Your task to perform on an android device: install app "Adobe Acrobat Reader" Image 0: 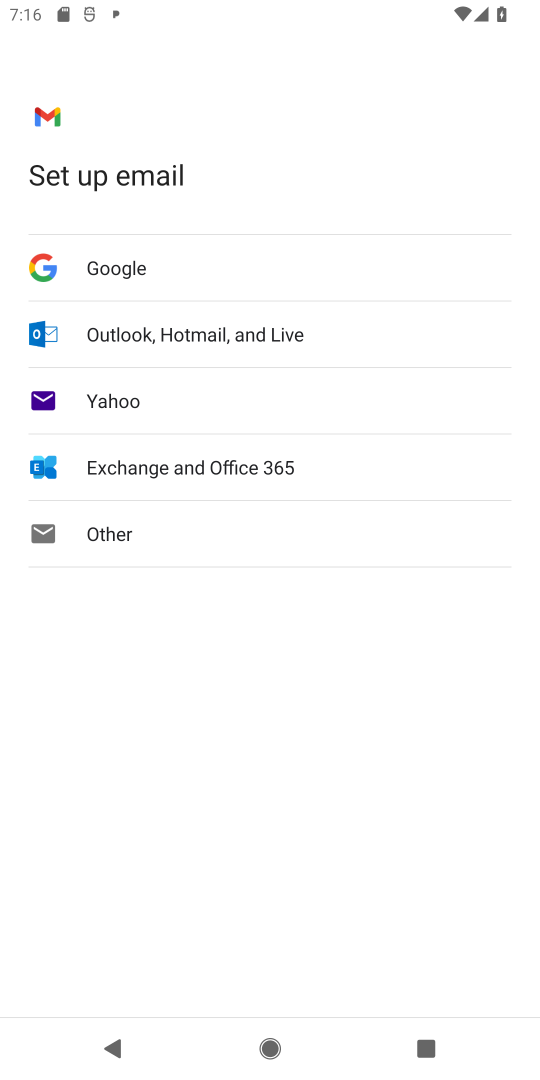
Step 0: press home button
Your task to perform on an android device: install app "Adobe Acrobat Reader" Image 1: 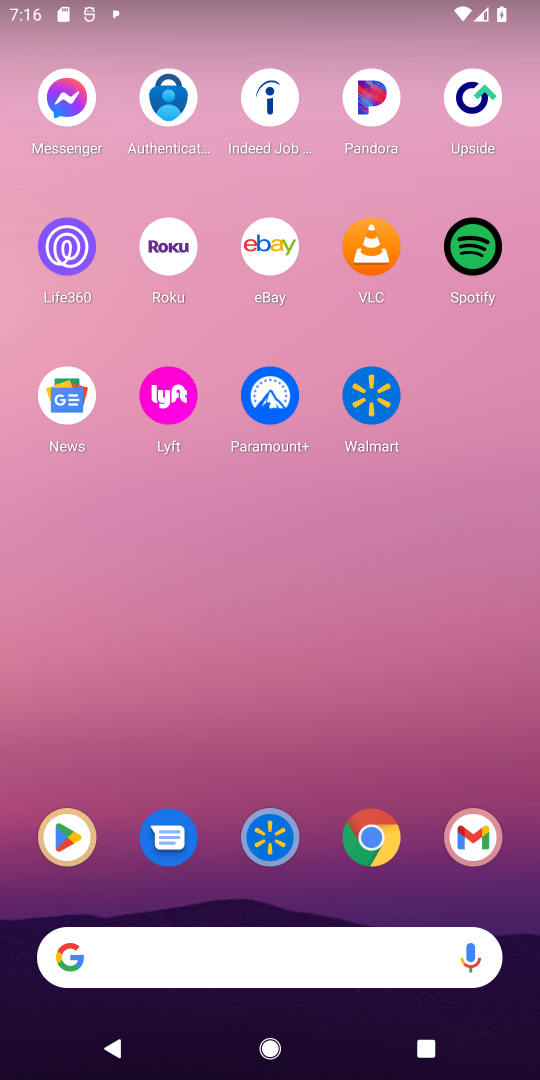
Step 1: click (53, 842)
Your task to perform on an android device: install app "Adobe Acrobat Reader" Image 2: 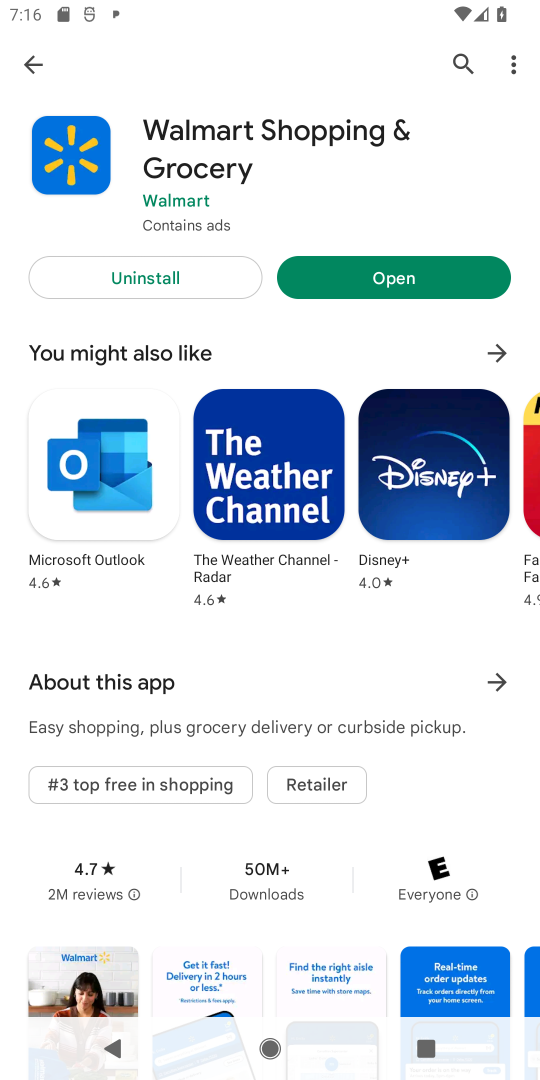
Step 2: click (454, 51)
Your task to perform on an android device: install app "Adobe Acrobat Reader" Image 3: 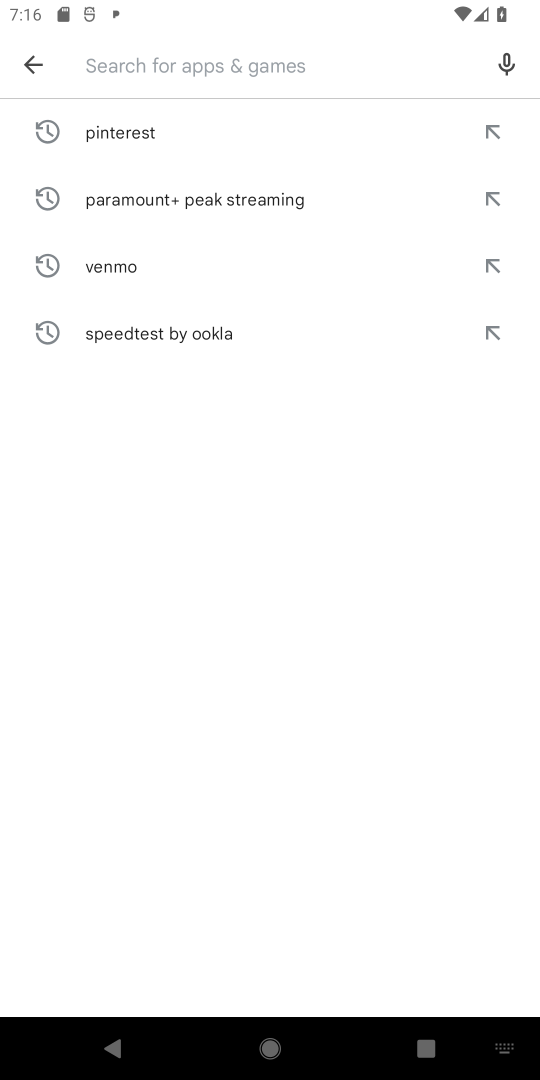
Step 3: type "Adobe Acrobat Reader"
Your task to perform on an android device: install app "Adobe Acrobat Reader" Image 4: 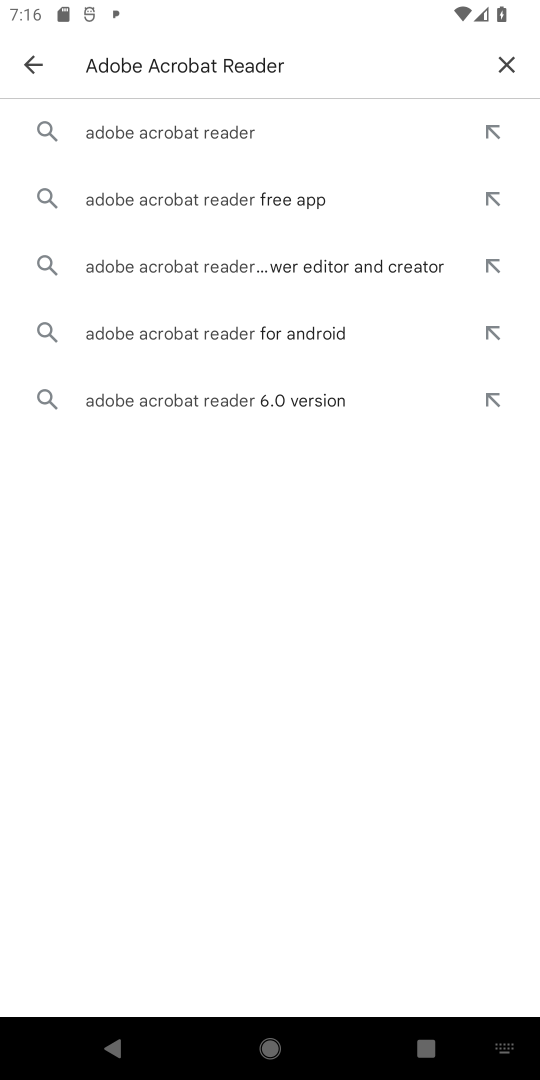
Step 4: click (110, 137)
Your task to perform on an android device: install app "Adobe Acrobat Reader" Image 5: 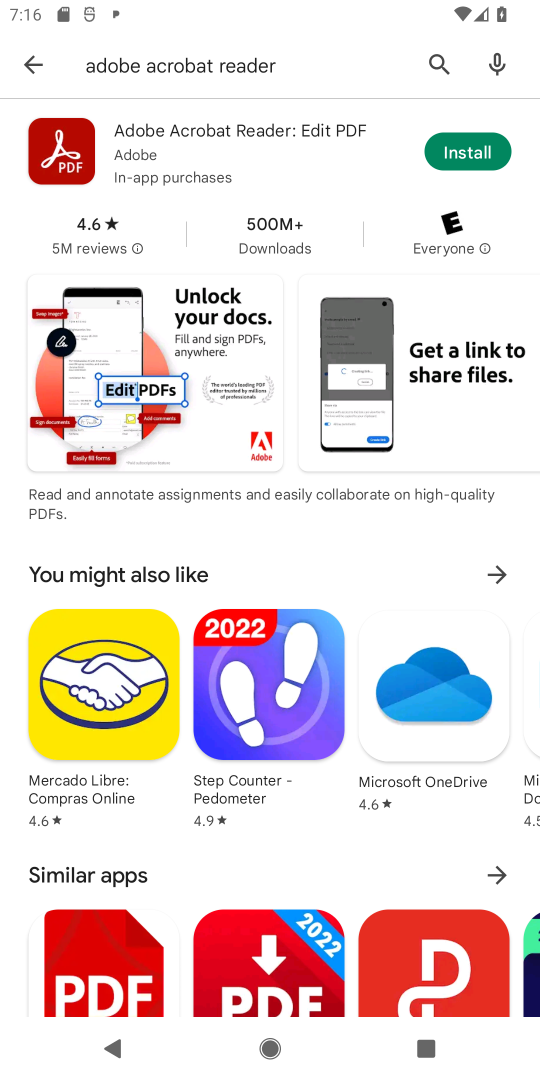
Step 5: click (466, 146)
Your task to perform on an android device: install app "Adobe Acrobat Reader" Image 6: 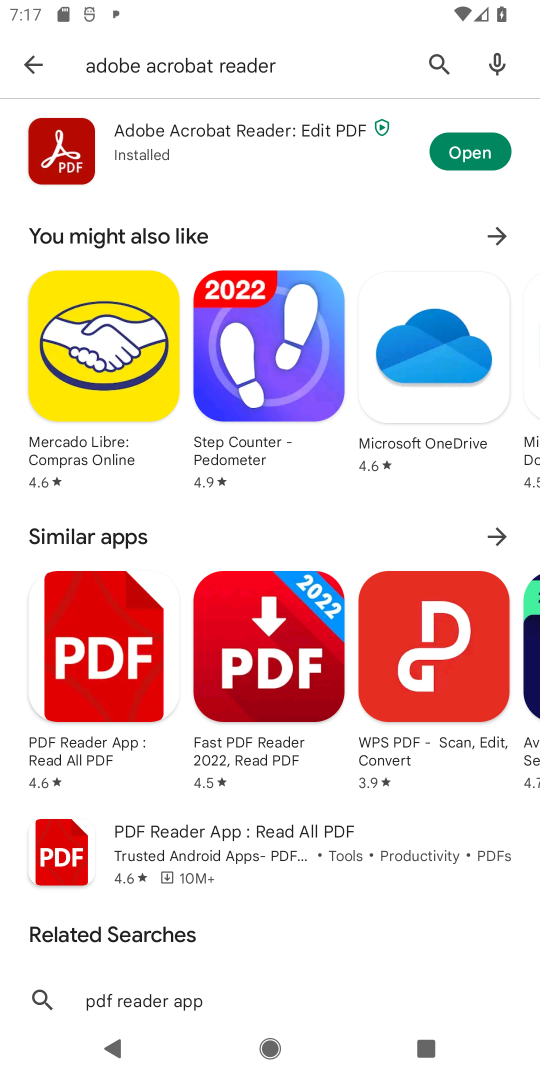
Step 6: task complete